Your task to perform on an android device: turn on notifications settings in the gmail app Image 0: 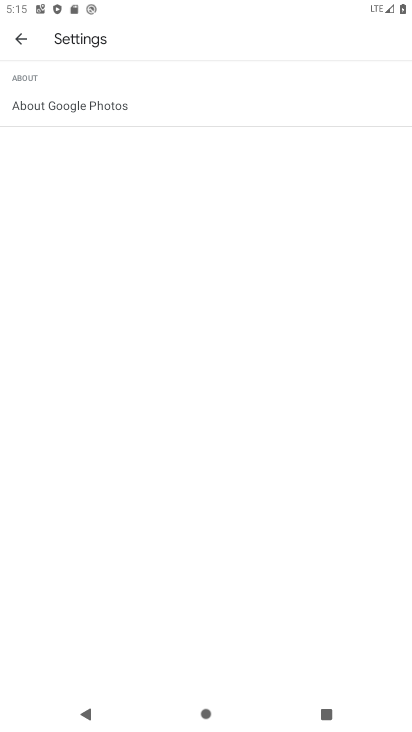
Step 0: press back button
Your task to perform on an android device: turn on notifications settings in the gmail app Image 1: 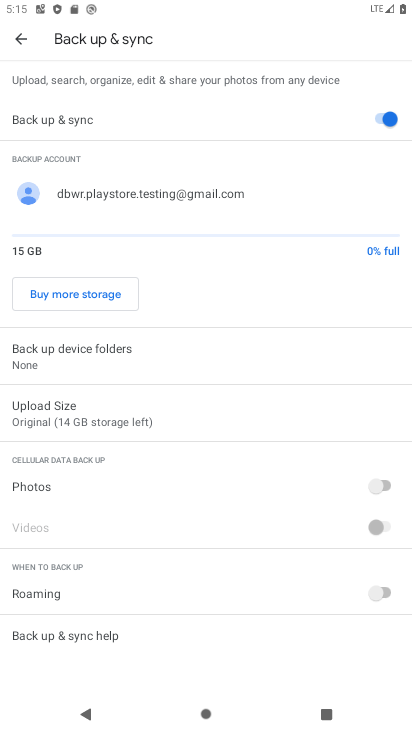
Step 1: press back button
Your task to perform on an android device: turn on notifications settings in the gmail app Image 2: 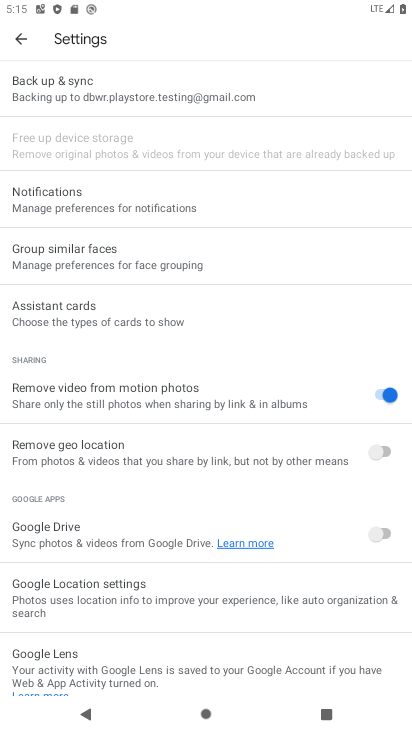
Step 2: press back button
Your task to perform on an android device: turn on notifications settings in the gmail app Image 3: 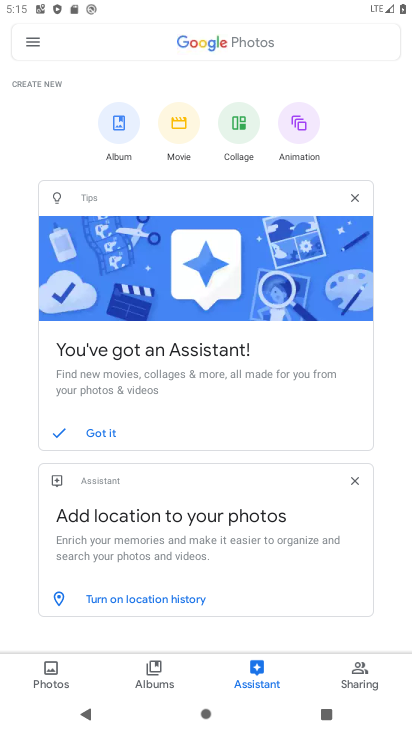
Step 3: press back button
Your task to perform on an android device: turn on notifications settings in the gmail app Image 4: 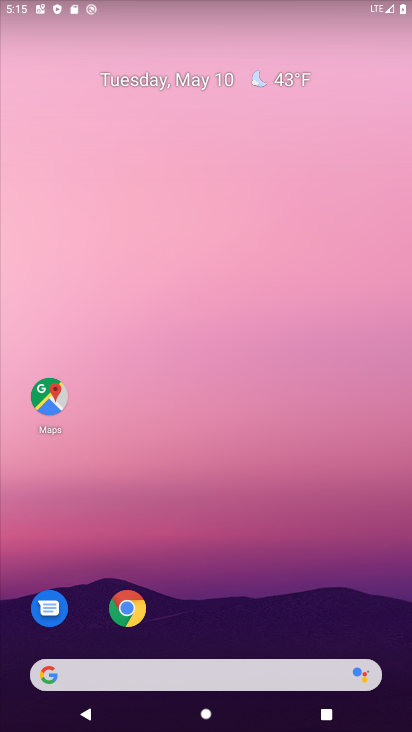
Step 4: drag from (169, 576) to (225, 41)
Your task to perform on an android device: turn on notifications settings in the gmail app Image 5: 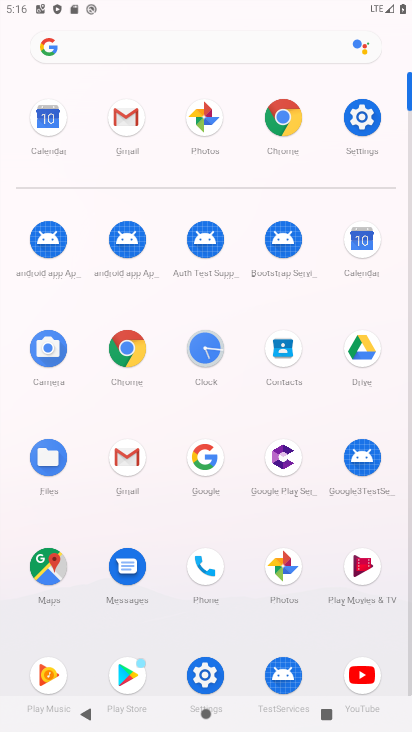
Step 5: click (134, 120)
Your task to perform on an android device: turn on notifications settings in the gmail app Image 6: 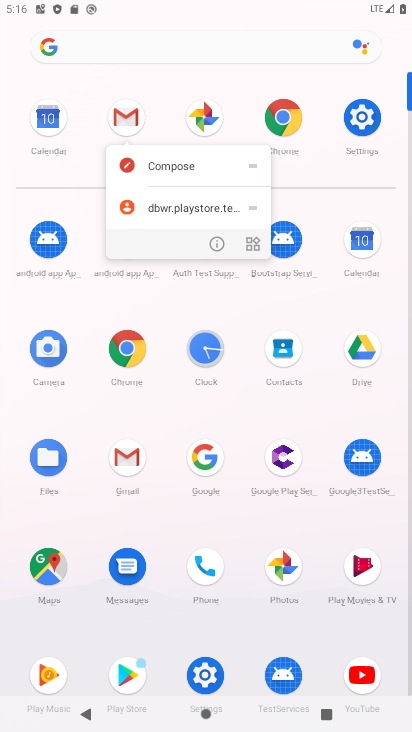
Step 6: click (218, 244)
Your task to perform on an android device: turn on notifications settings in the gmail app Image 7: 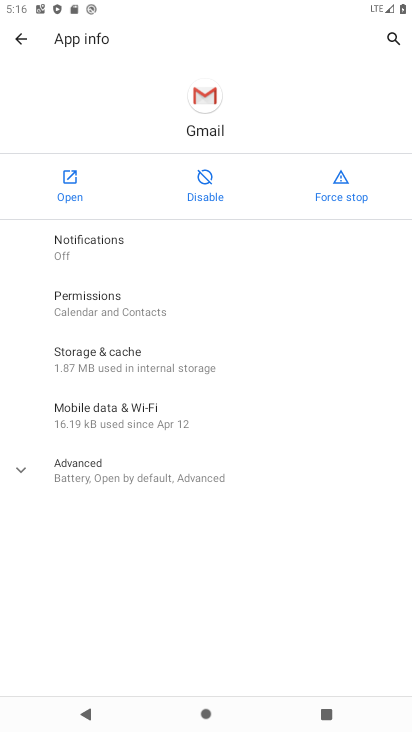
Step 7: click (90, 256)
Your task to perform on an android device: turn on notifications settings in the gmail app Image 8: 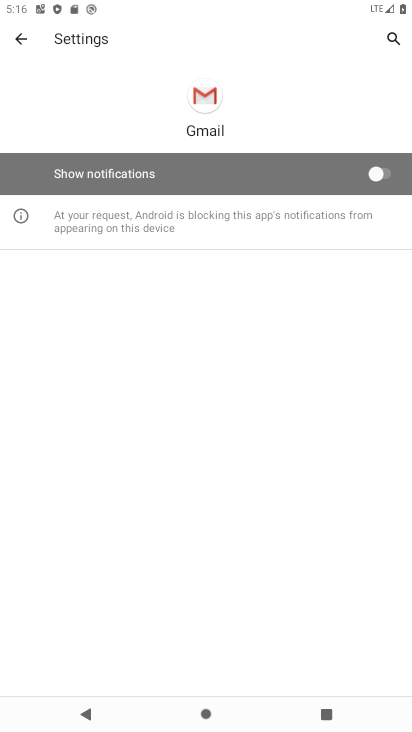
Step 8: click (384, 176)
Your task to perform on an android device: turn on notifications settings in the gmail app Image 9: 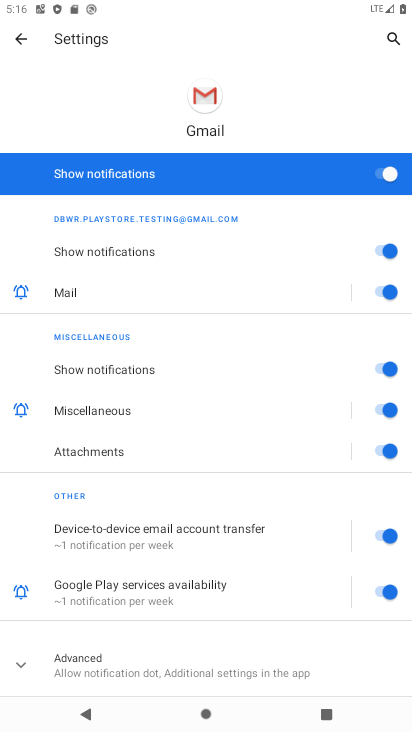
Step 9: task complete